Your task to perform on an android device: Open internet settings Image 0: 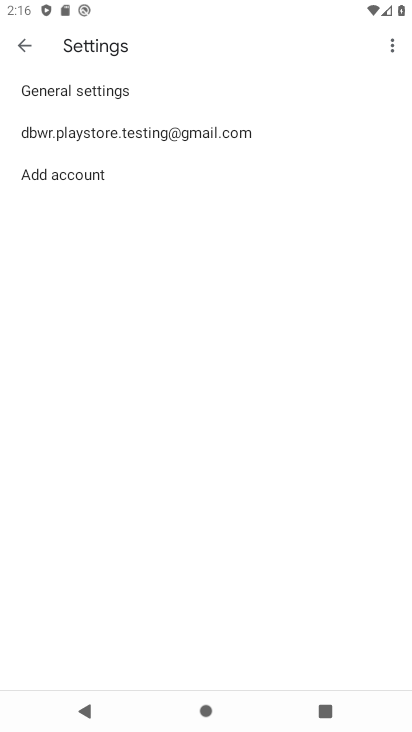
Step 0: press home button
Your task to perform on an android device: Open internet settings Image 1: 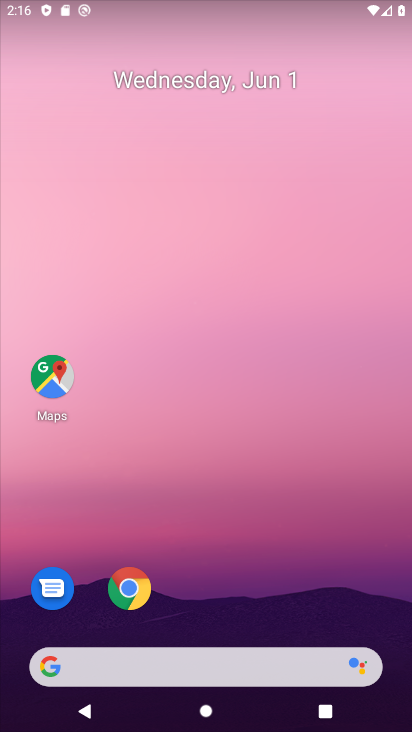
Step 1: drag from (222, 520) to (207, 57)
Your task to perform on an android device: Open internet settings Image 2: 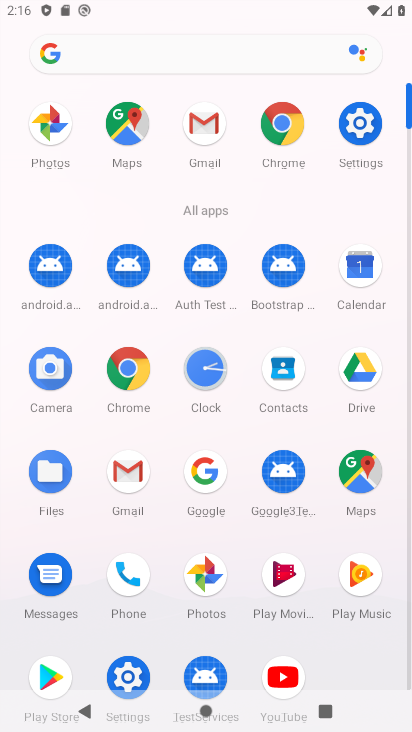
Step 2: click (365, 125)
Your task to perform on an android device: Open internet settings Image 3: 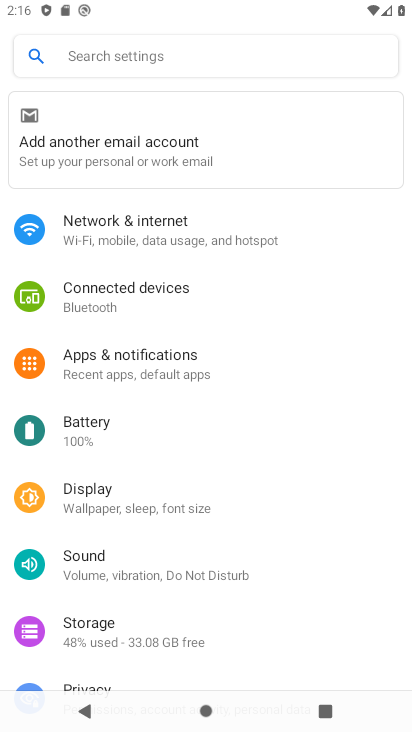
Step 3: click (114, 223)
Your task to perform on an android device: Open internet settings Image 4: 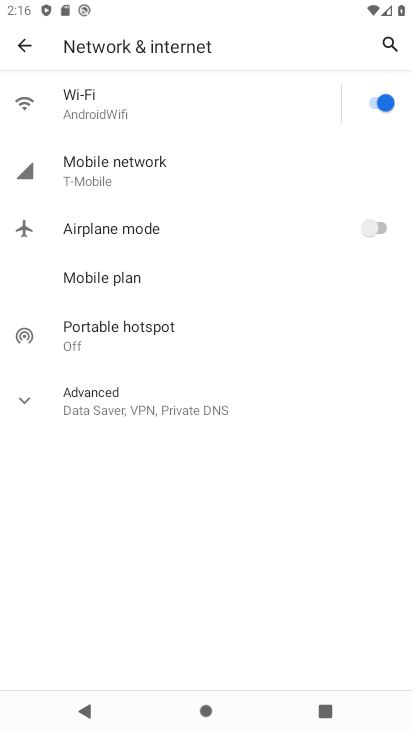
Step 4: click (125, 169)
Your task to perform on an android device: Open internet settings Image 5: 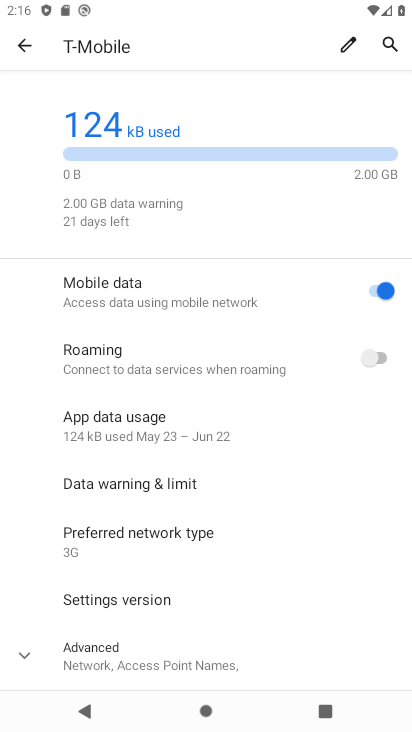
Step 5: task complete